Your task to perform on an android device: Turn off the flashlight Image 0: 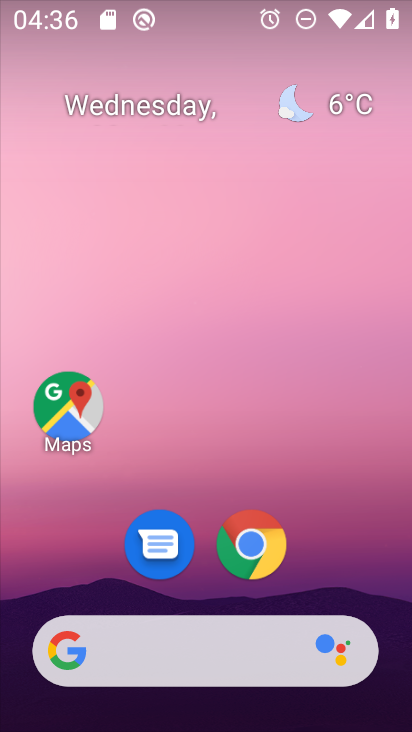
Step 0: drag from (314, 562) to (365, 106)
Your task to perform on an android device: Turn off the flashlight Image 1: 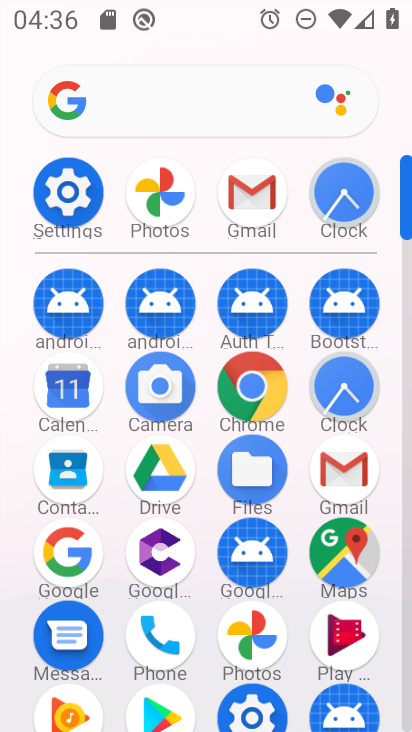
Step 1: click (37, 188)
Your task to perform on an android device: Turn off the flashlight Image 2: 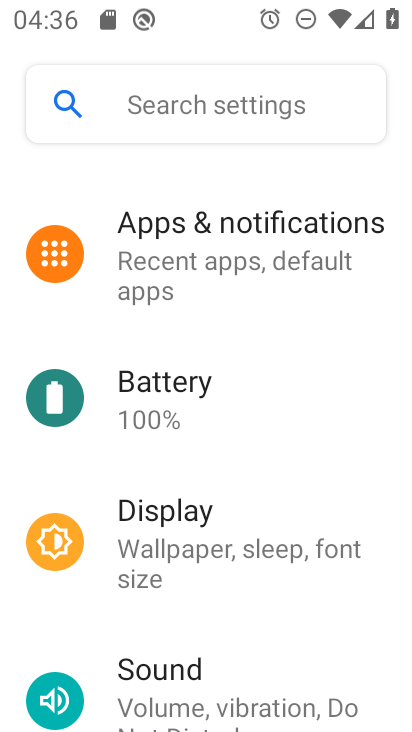
Step 2: task complete